Your task to perform on an android device: Open my contact list Image 0: 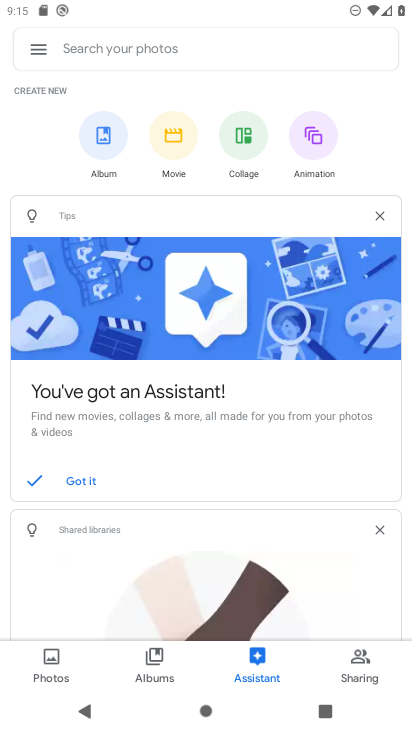
Step 0: press home button
Your task to perform on an android device: Open my contact list Image 1: 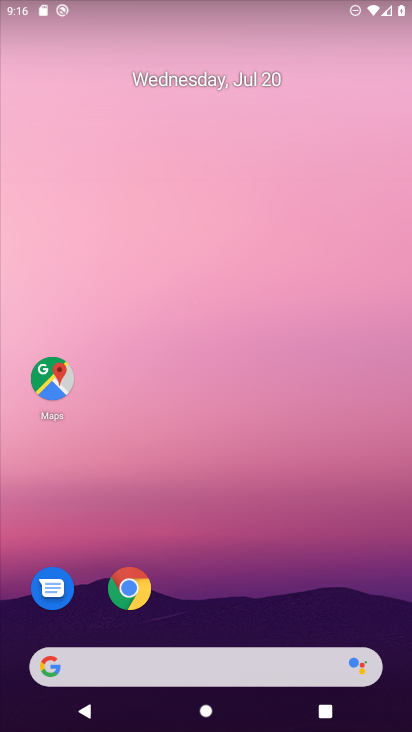
Step 1: drag from (225, 624) to (388, 286)
Your task to perform on an android device: Open my contact list Image 2: 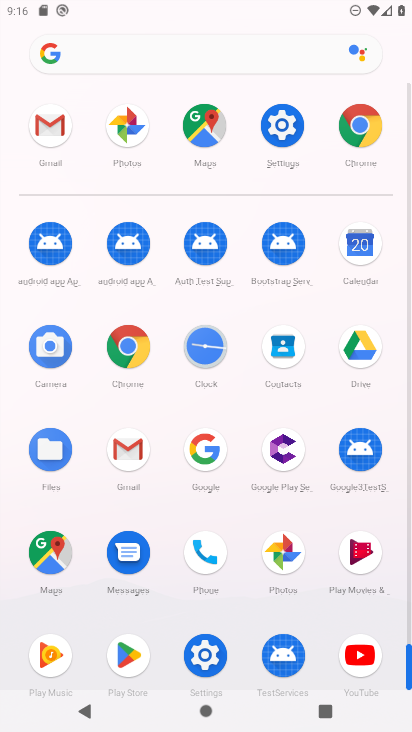
Step 2: click (297, 367)
Your task to perform on an android device: Open my contact list Image 3: 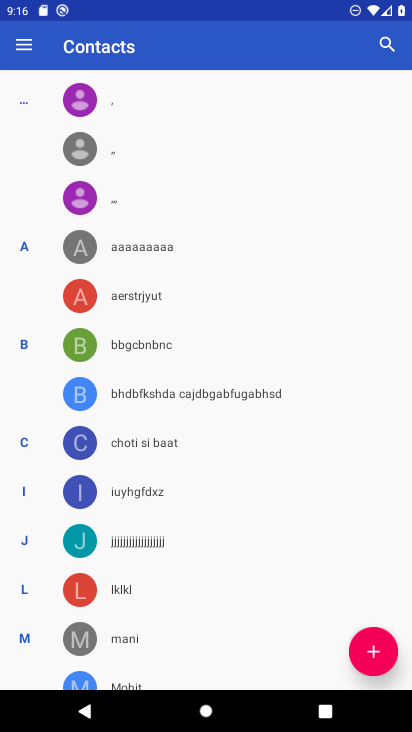
Step 3: task complete